Your task to perform on an android device: delete a single message in the gmail app Image 0: 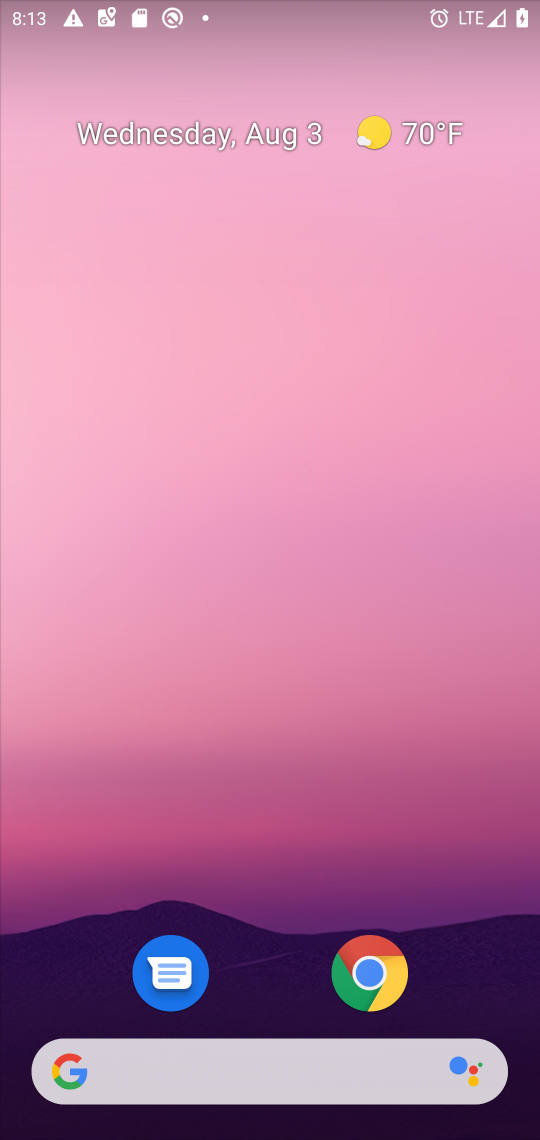
Step 0: press home button
Your task to perform on an android device: delete a single message in the gmail app Image 1: 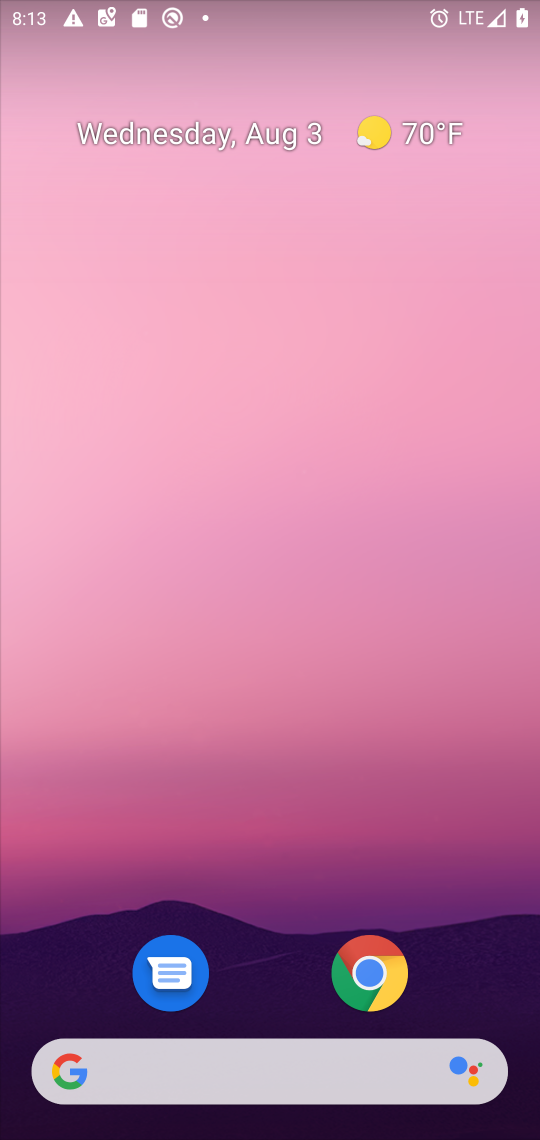
Step 1: drag from (275, 1012) to (280, 51)
Your task to perform on an android device: delete a single message in the gmail app Image 2: 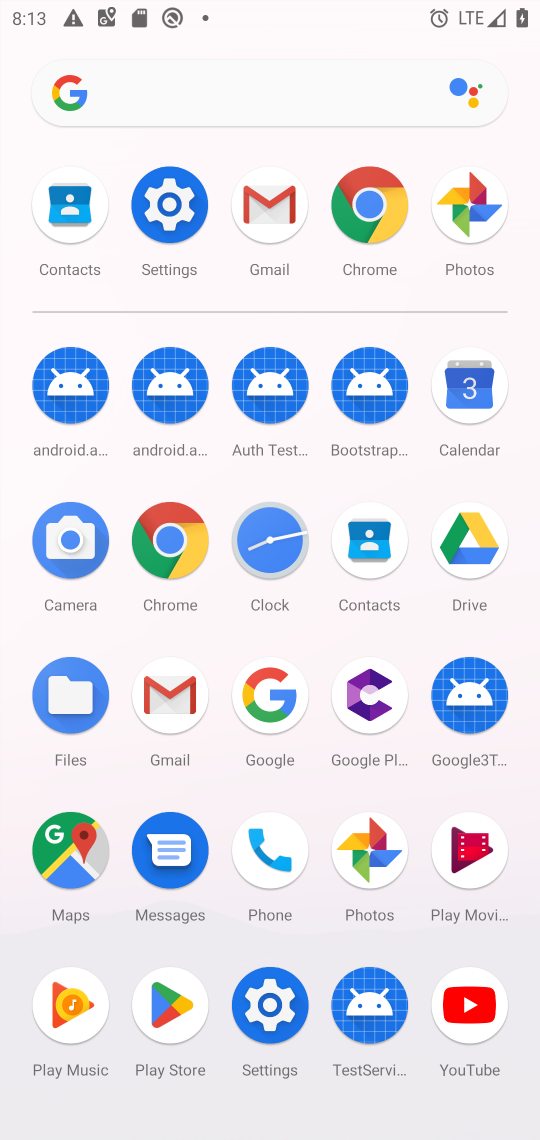
Step 2: click (160, 690)
Your task to perform on an android device: delete a single message in the gmail app Image 3: 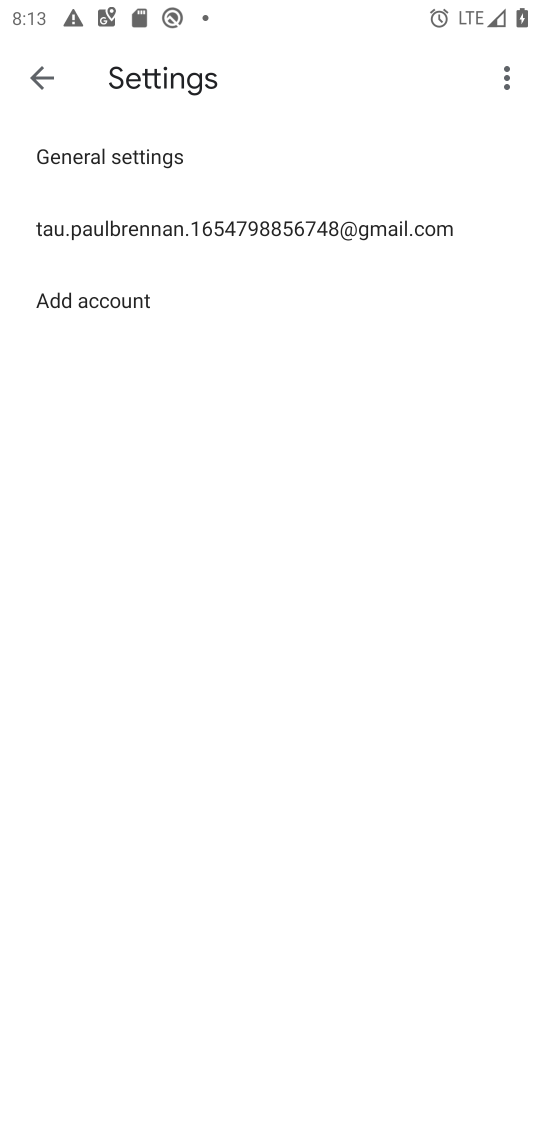
Step 3: click (49, 78)
Your task to perform on an android device: delete a single message in the gmail app Image 4: 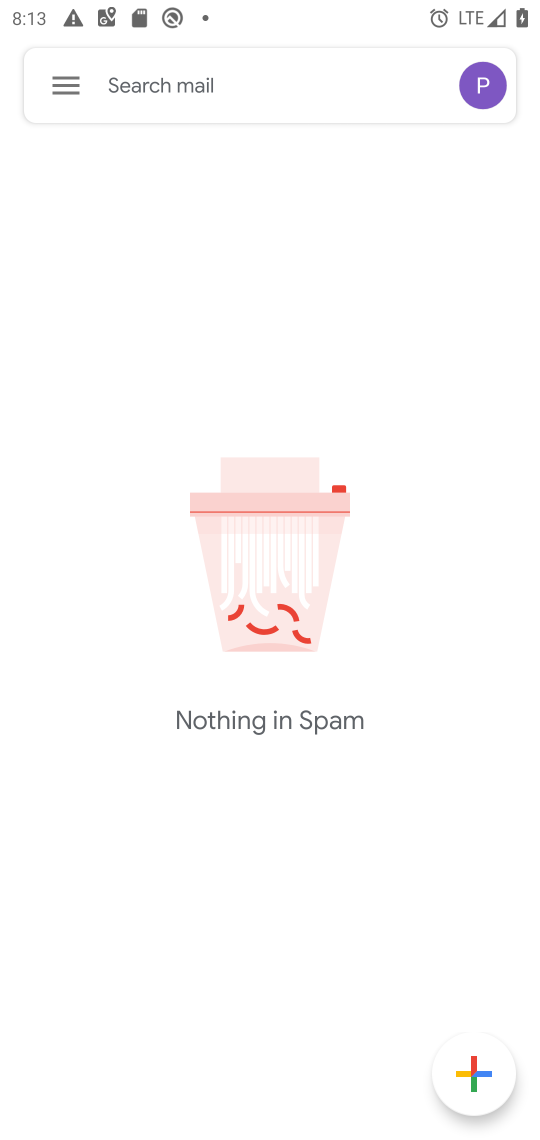
Step 4: click (60, 75)
Your task to perform on an android device: delete a single message in the gmail app Image 5: 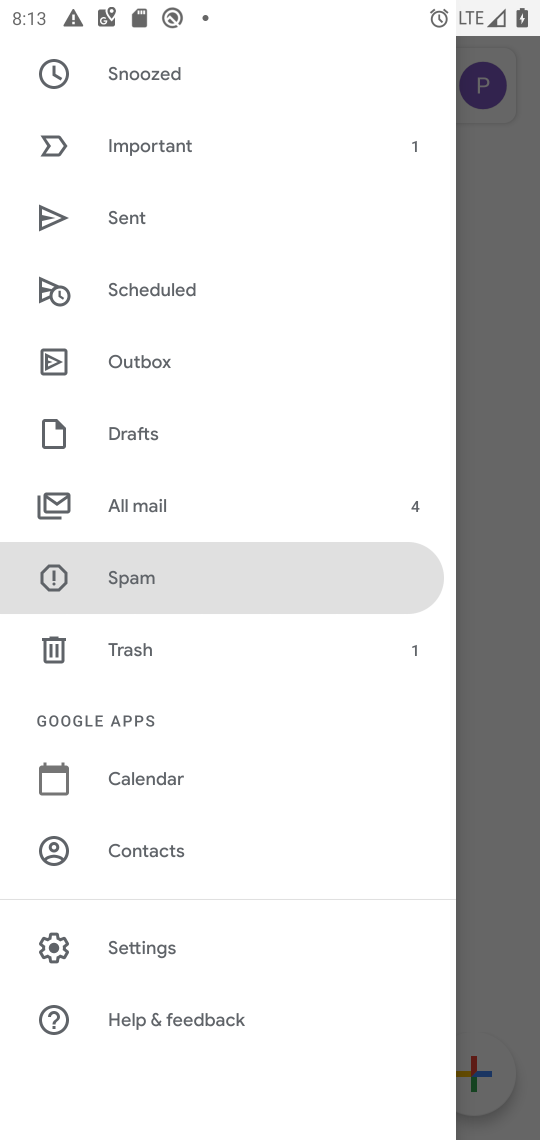
Step 5: click (132, 493)
Your task to perform on an android device: delete a single message in the gmail app Image 6: 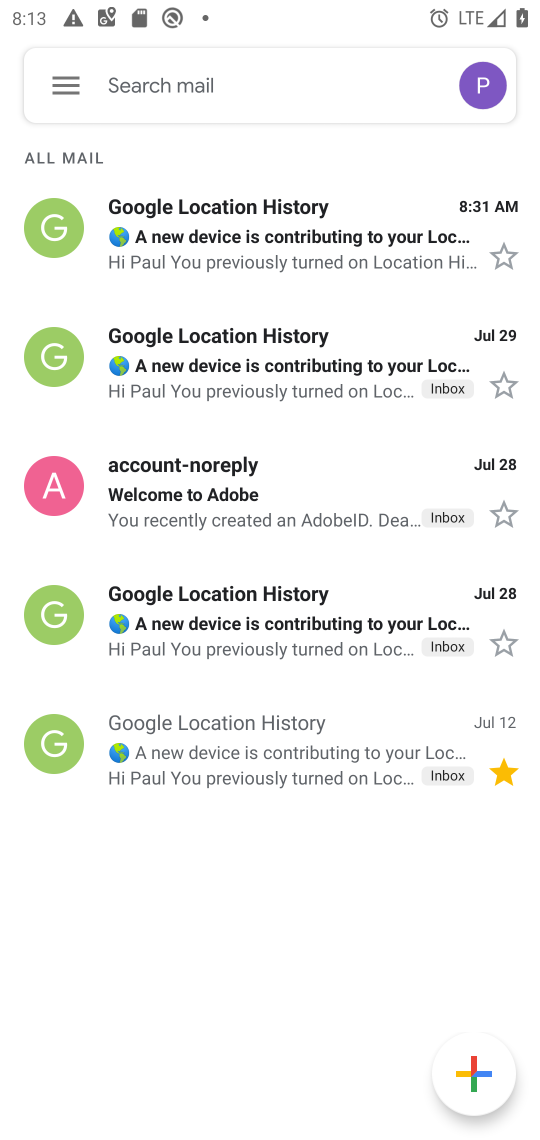
Step 6: click (56, 214)
Your task to perform on an android device: delete a single message in the gmail app Image 7: 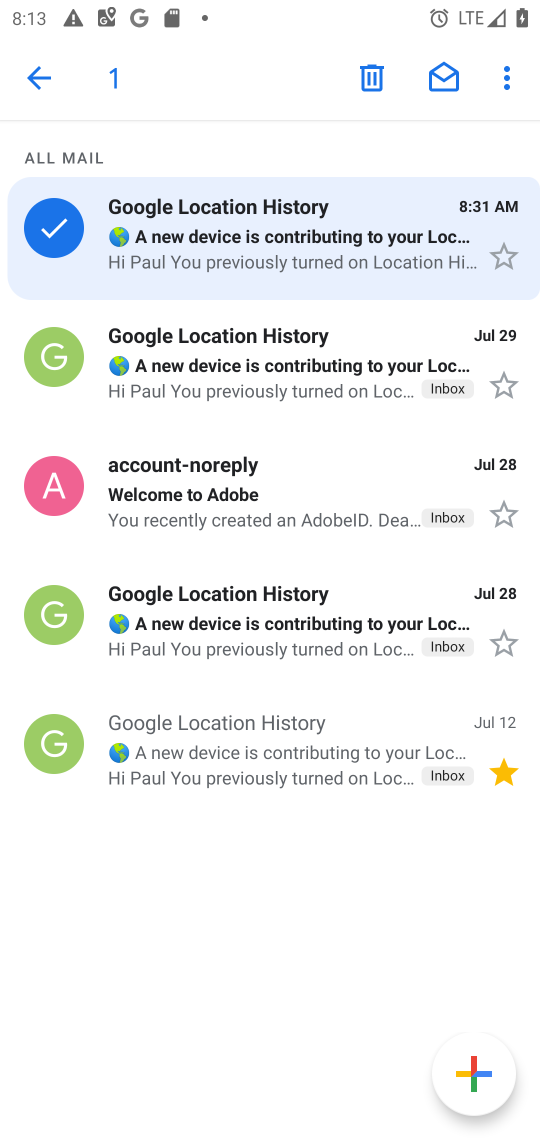
Step 7: click (365, 76)
Your task to perform on an android device: delete a single message in the gmail app Image 8: 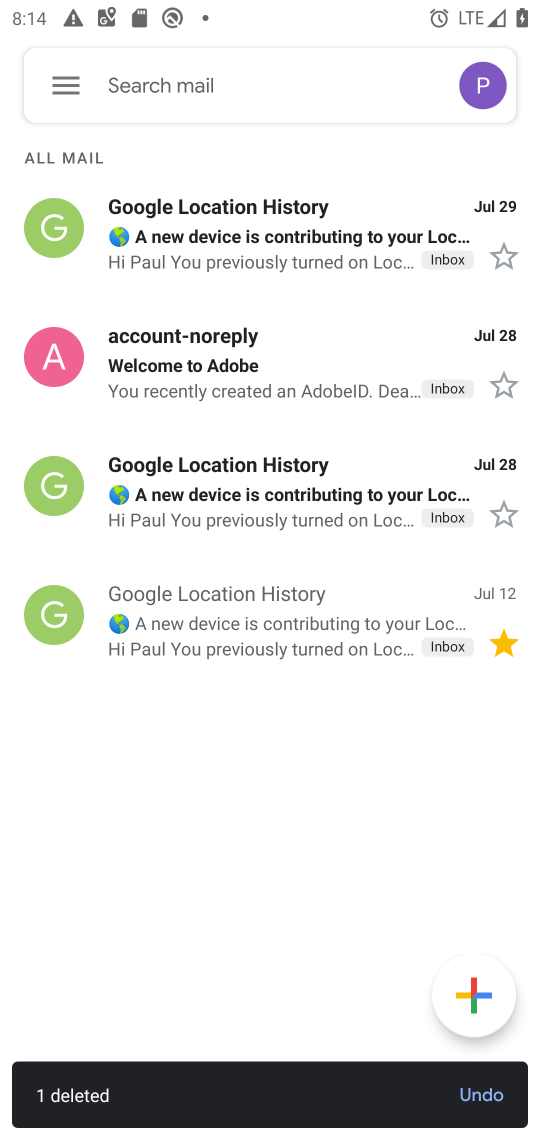
Step 8: task complete